Your task to perform on an android device: open app "LiveIn - Share Your Moment" (install if not already installed) Image 0: 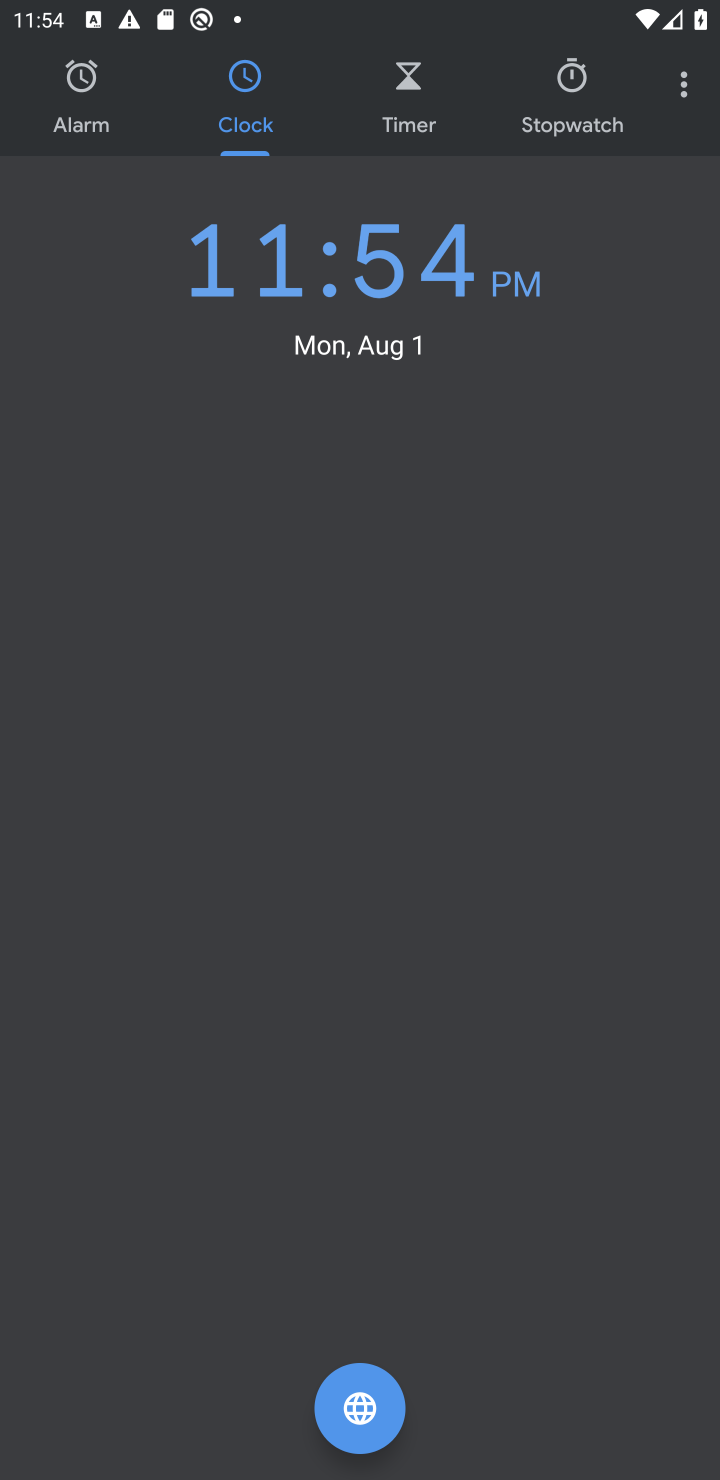
Step 0: press home button
Your task to perform on an android device: open app "LiveIn - Share Your Moment" (install if not already installed) Image 1: 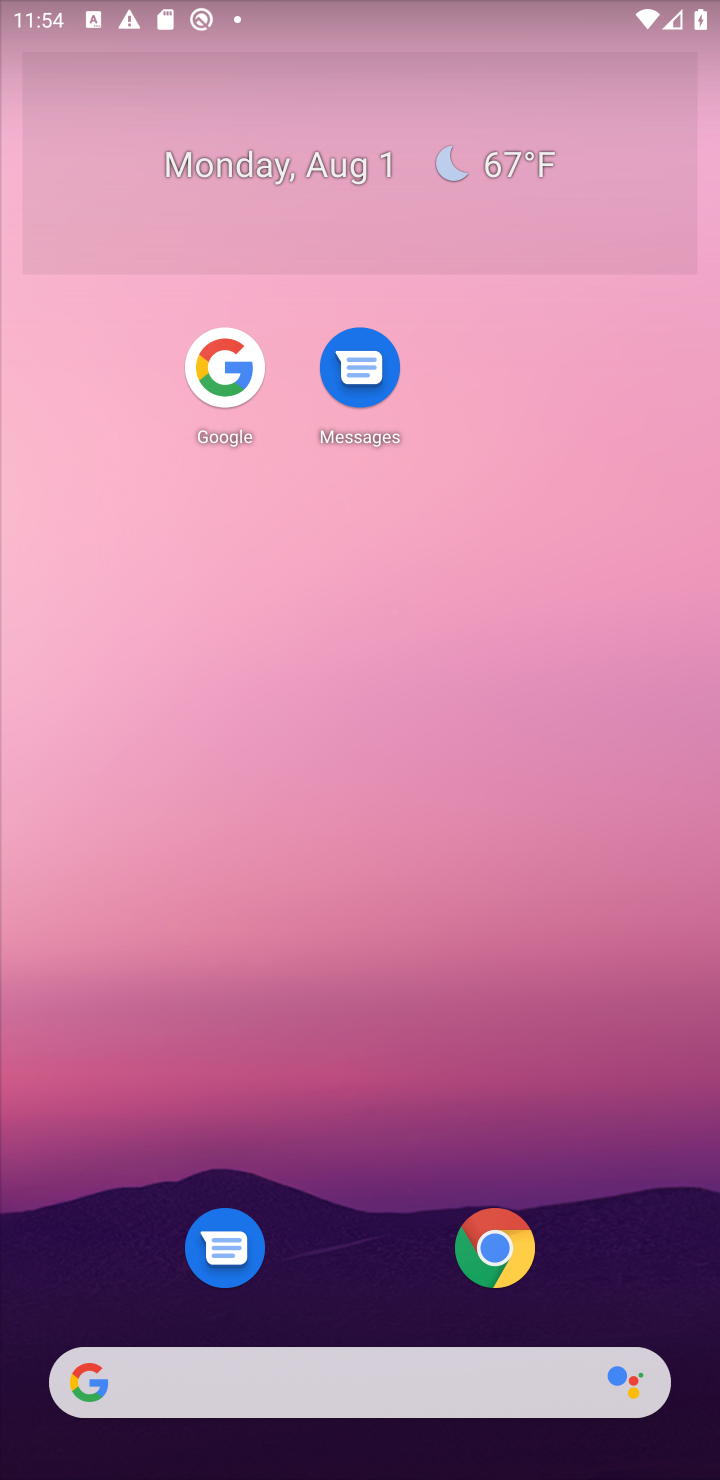
Step 1: drag from (537, 695) to (557, 94)
Your task to perform on an android device: open app "LiveIn - Share Your Moment" (install if not already installed) Image 2: 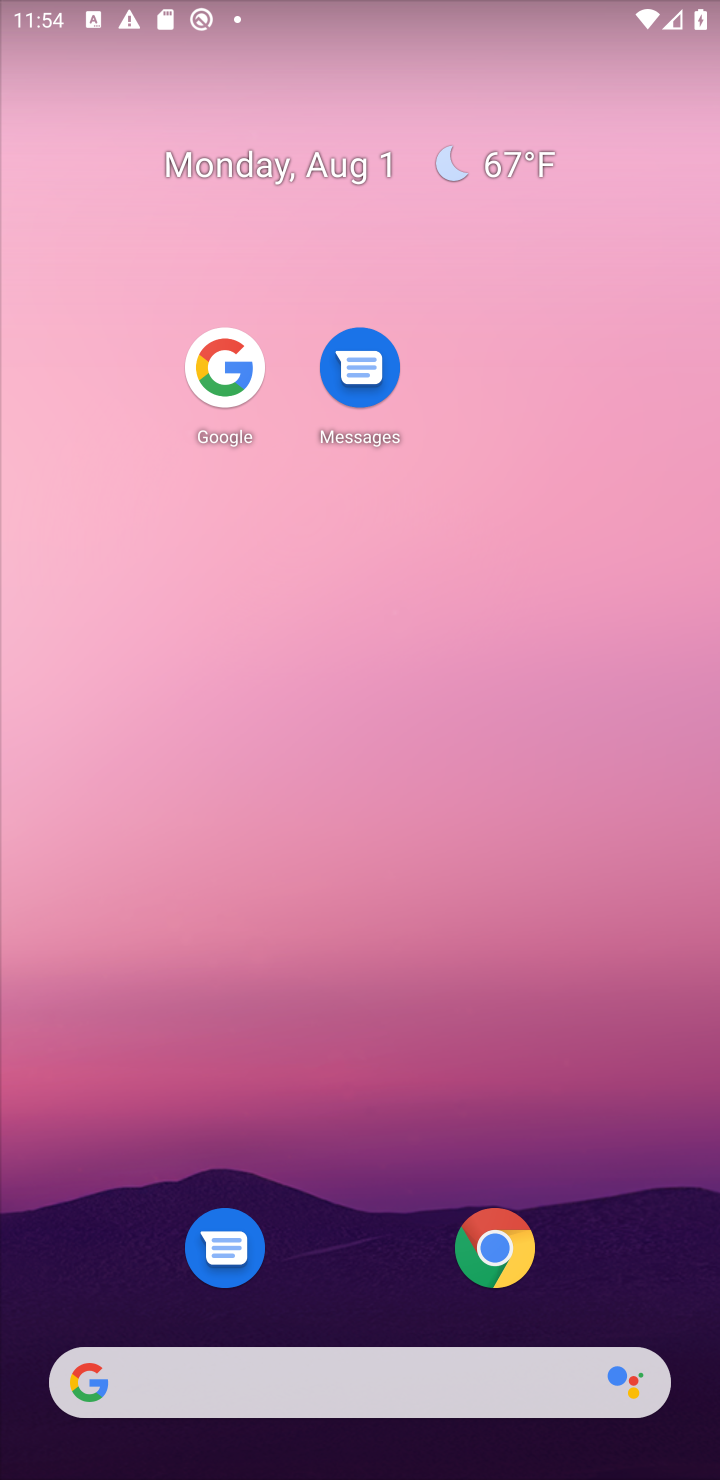
Step 2: drag from (591, 1051) to (594, 186)
Your task to perform on an android device: open app "LiveIn - Share Your Moment" (install if not already installed) Image 3: 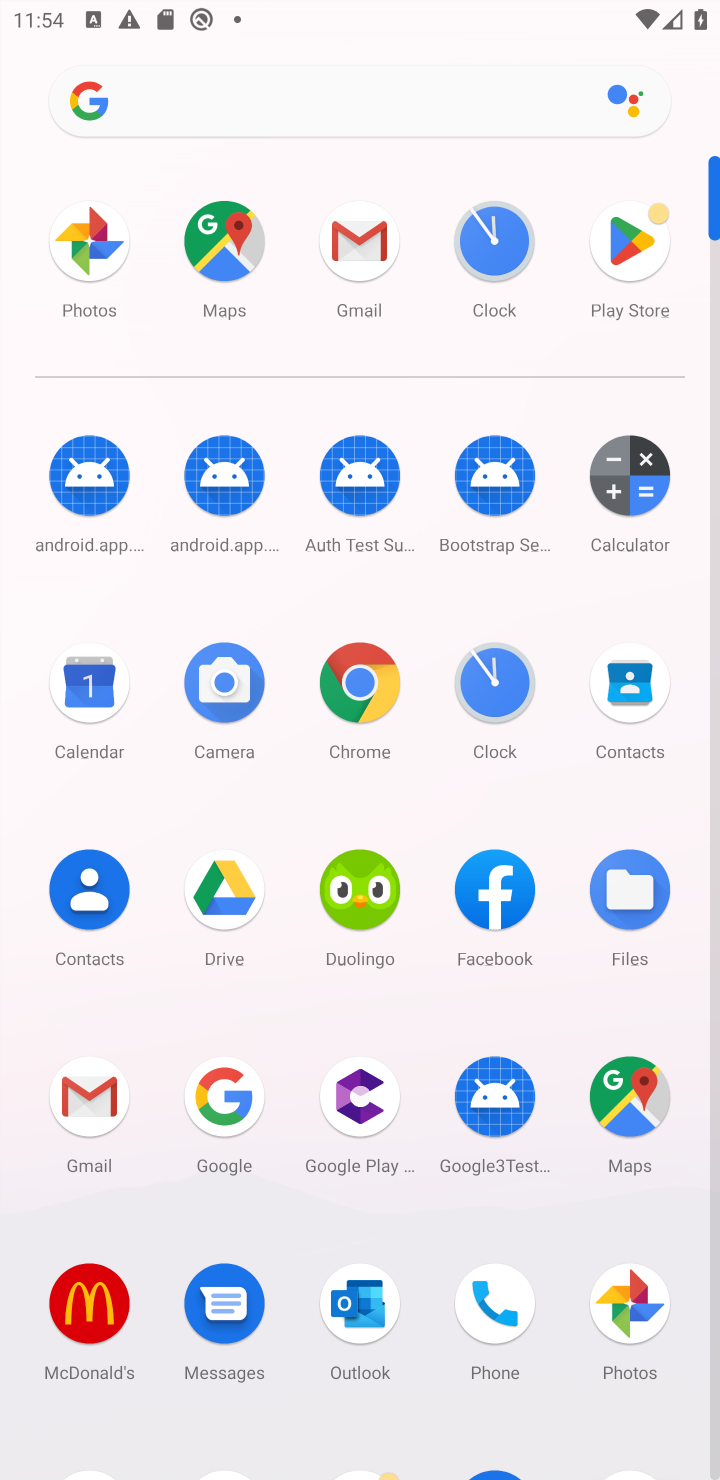
Step 3: drag from (426, 1219) to (407, 388)
Your task to perform on an android device: open app "LiveIn - Share Your Moment" (install if not already installed) Image 4: 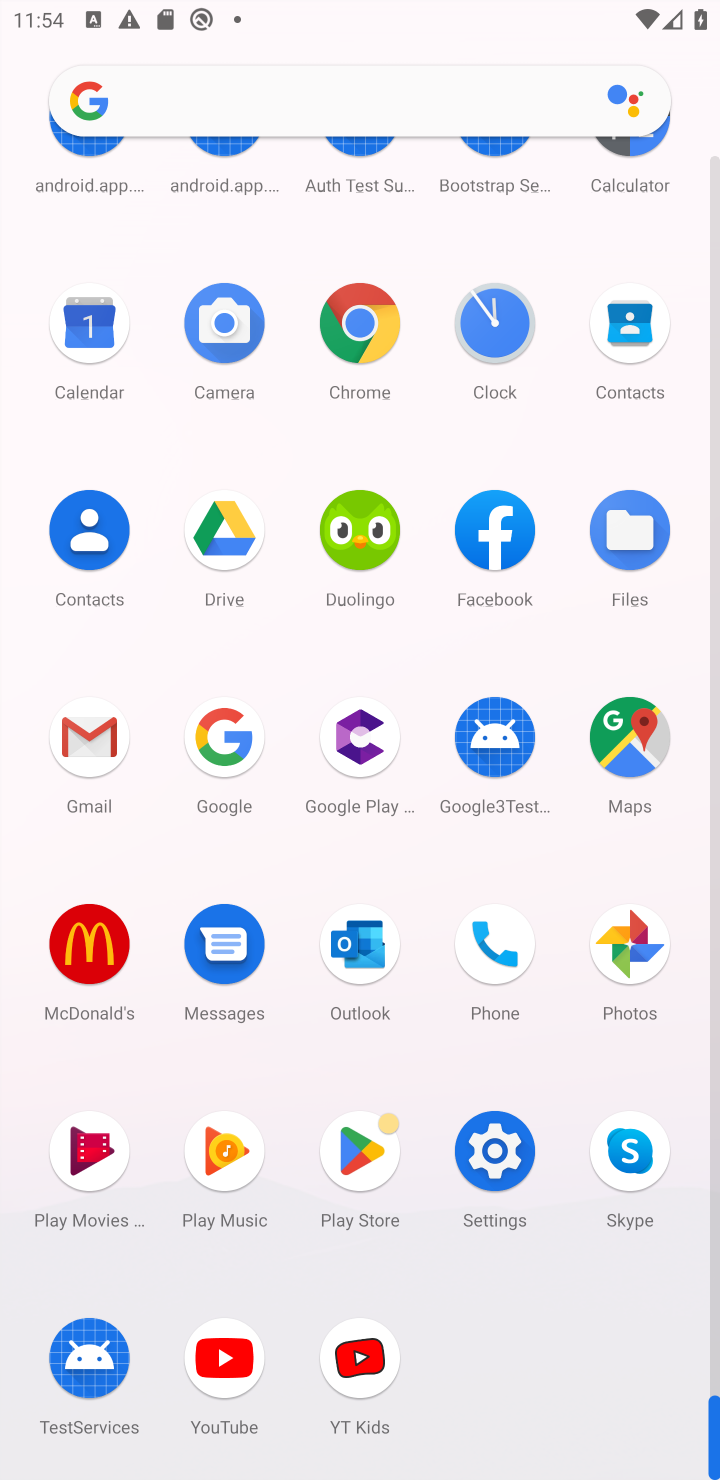
Step 4: click (375, 1146)
Your task to perform on an android device: open app "LiveIn - Share Your Moment" (install if not already installed) Image 5: 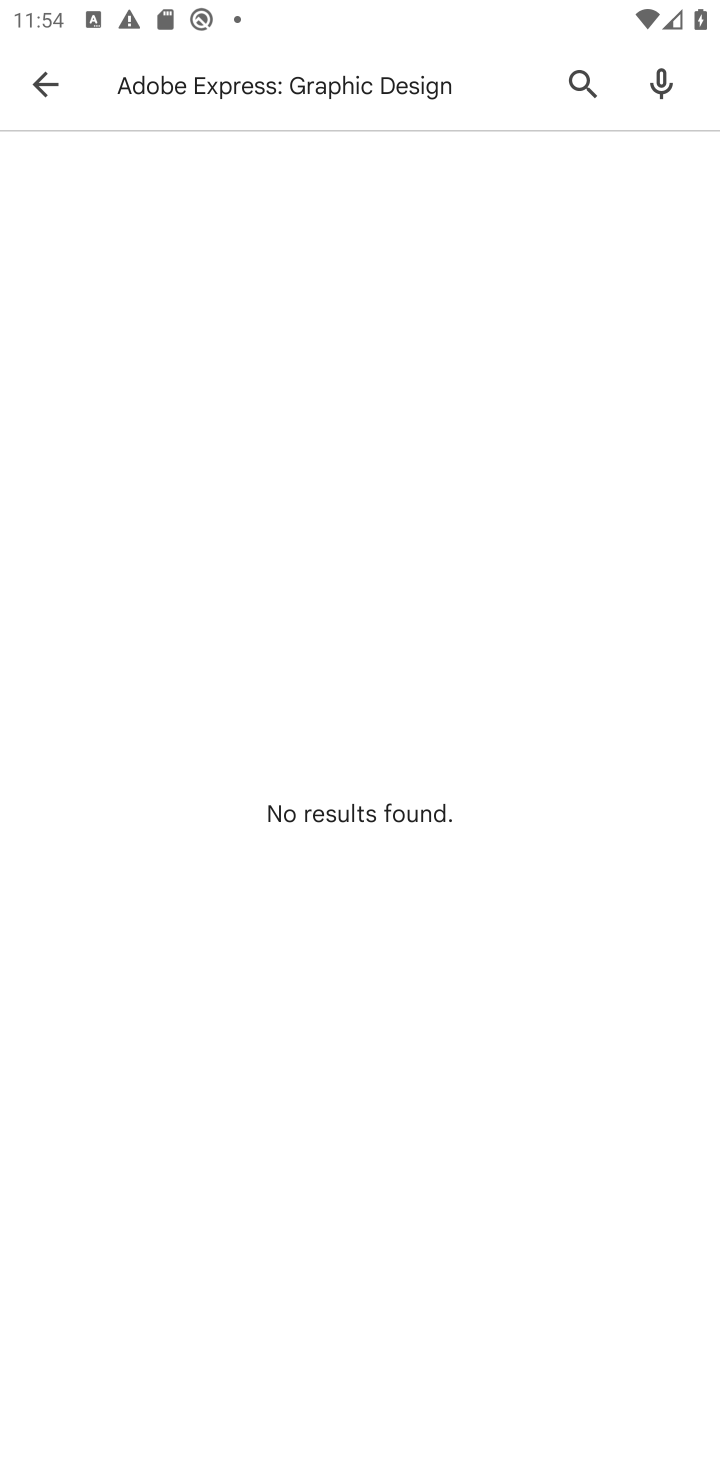
Step 5: click (456, 75)
Your task to perform on an android device: open app "LiveIn - Share Your Moment" (install if not already installed) Image 6: 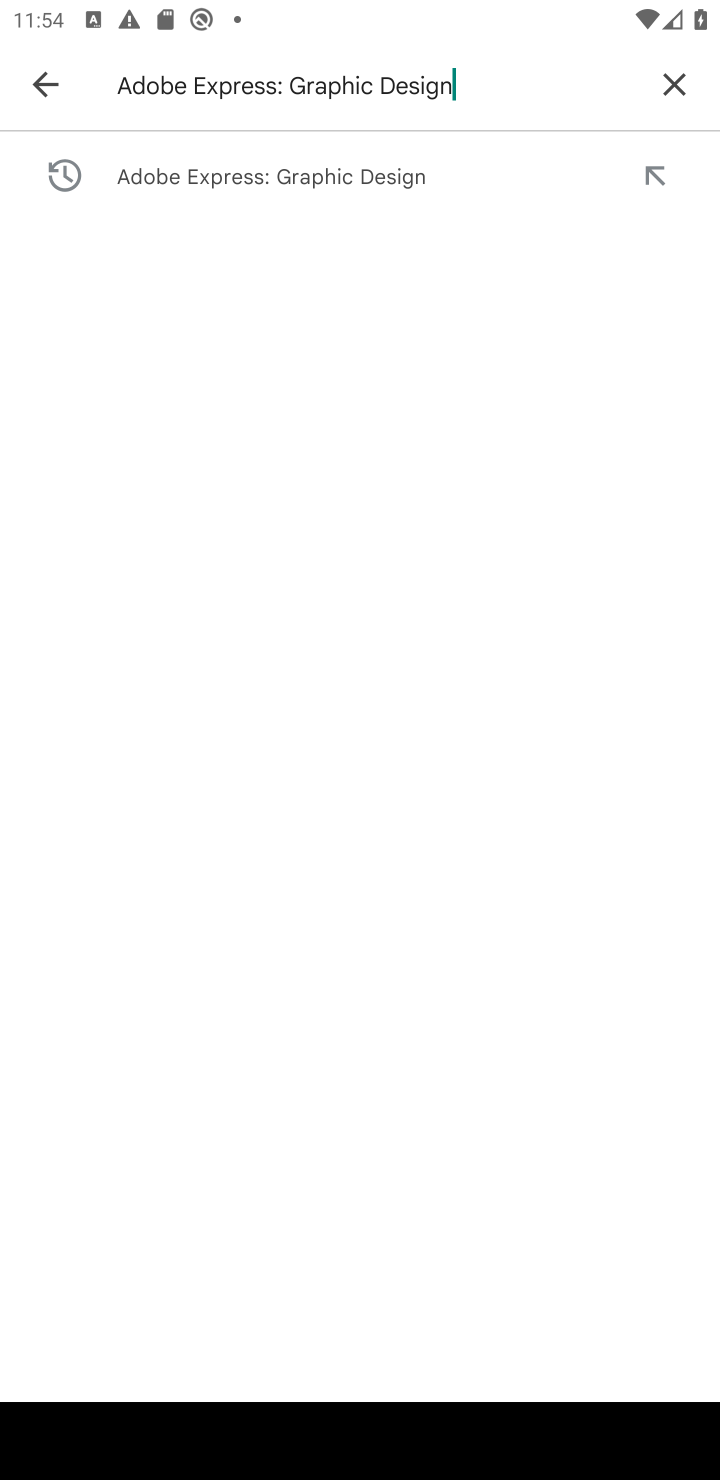
Step 6: click (689, 89)
Your task to perform on an android device: open app "LiveIn - Share Your Moment" (install if not already installed) Image 7: 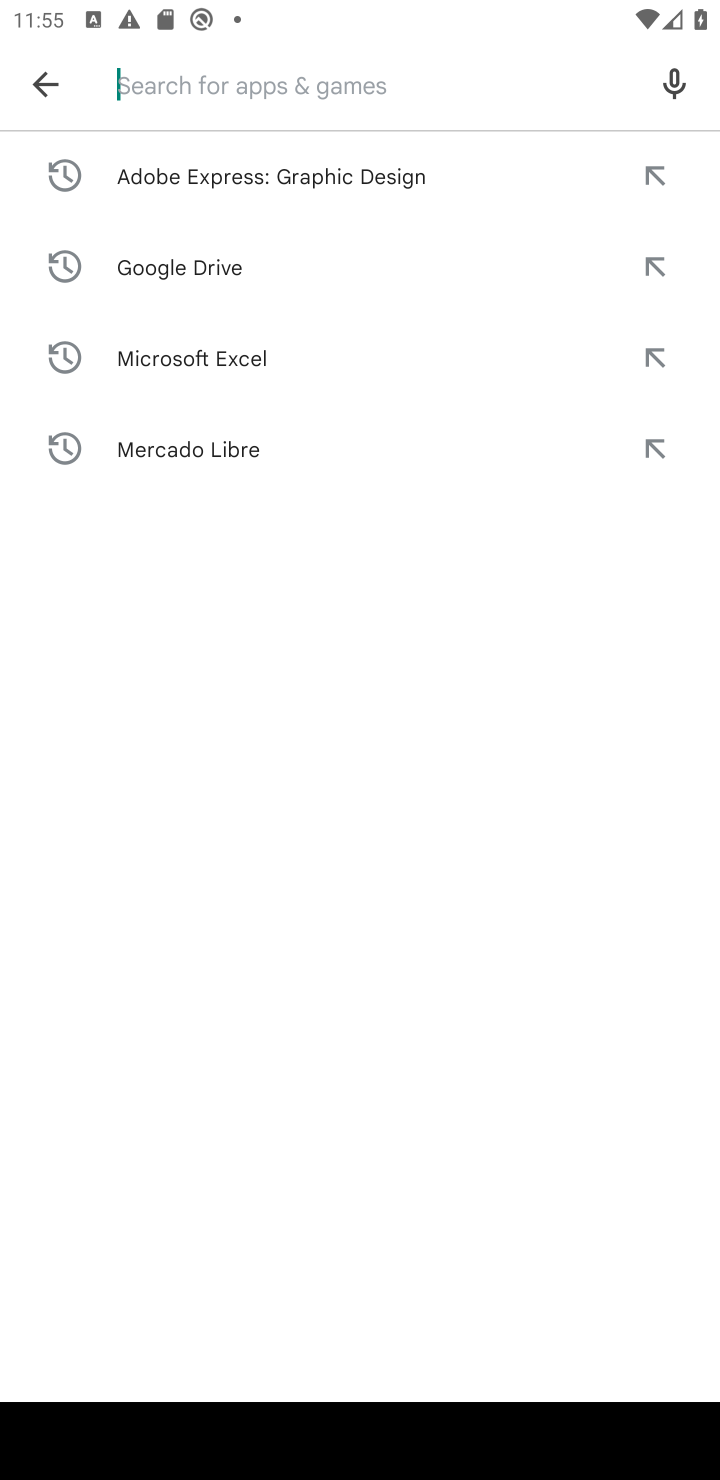
Step 7: type "Liveln - Share Your Moment"
Your task to perform on an android device: open app "LiveIn - Share Your Moment" (install if not already installed) Image 8: 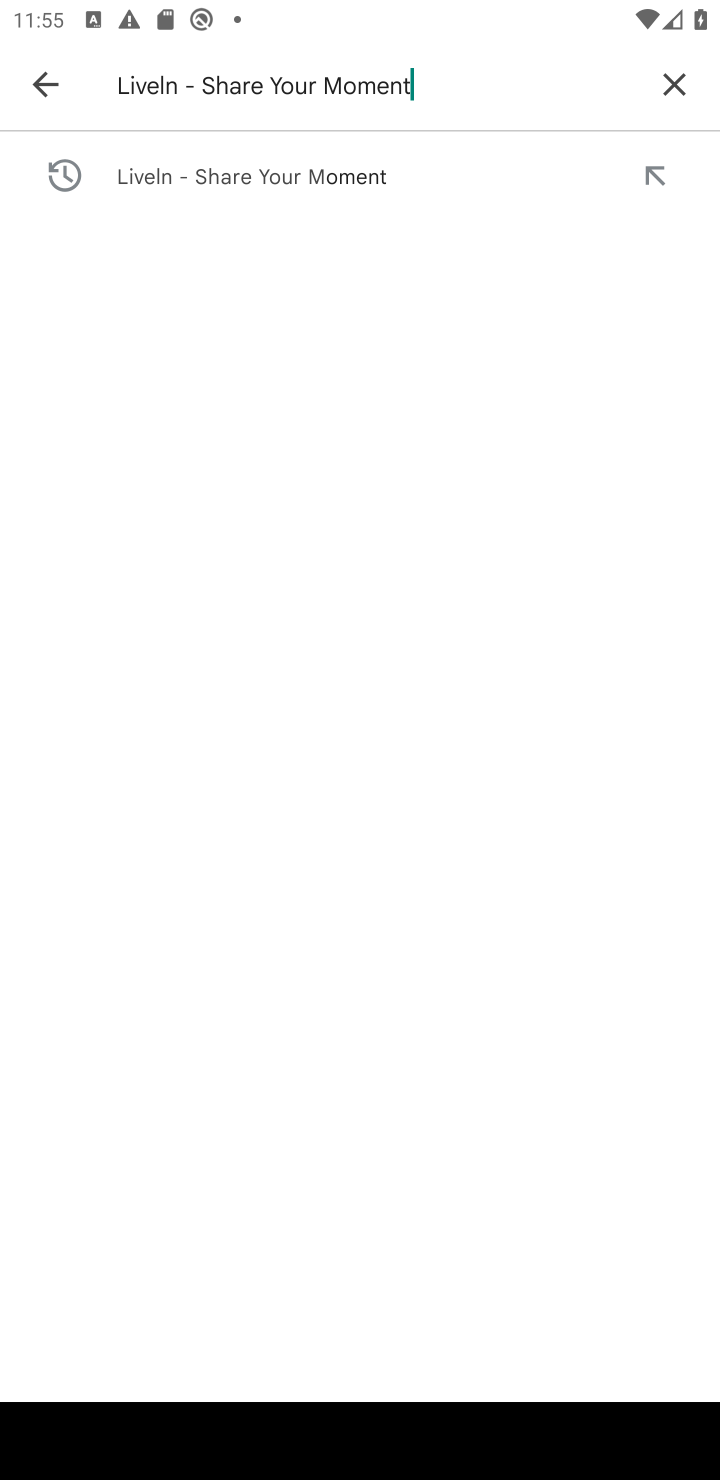
Step 8: press enter
Your task to perform on an android device: open app "LiveIn - Share Your Moment" (install if not already installed) Image 9: 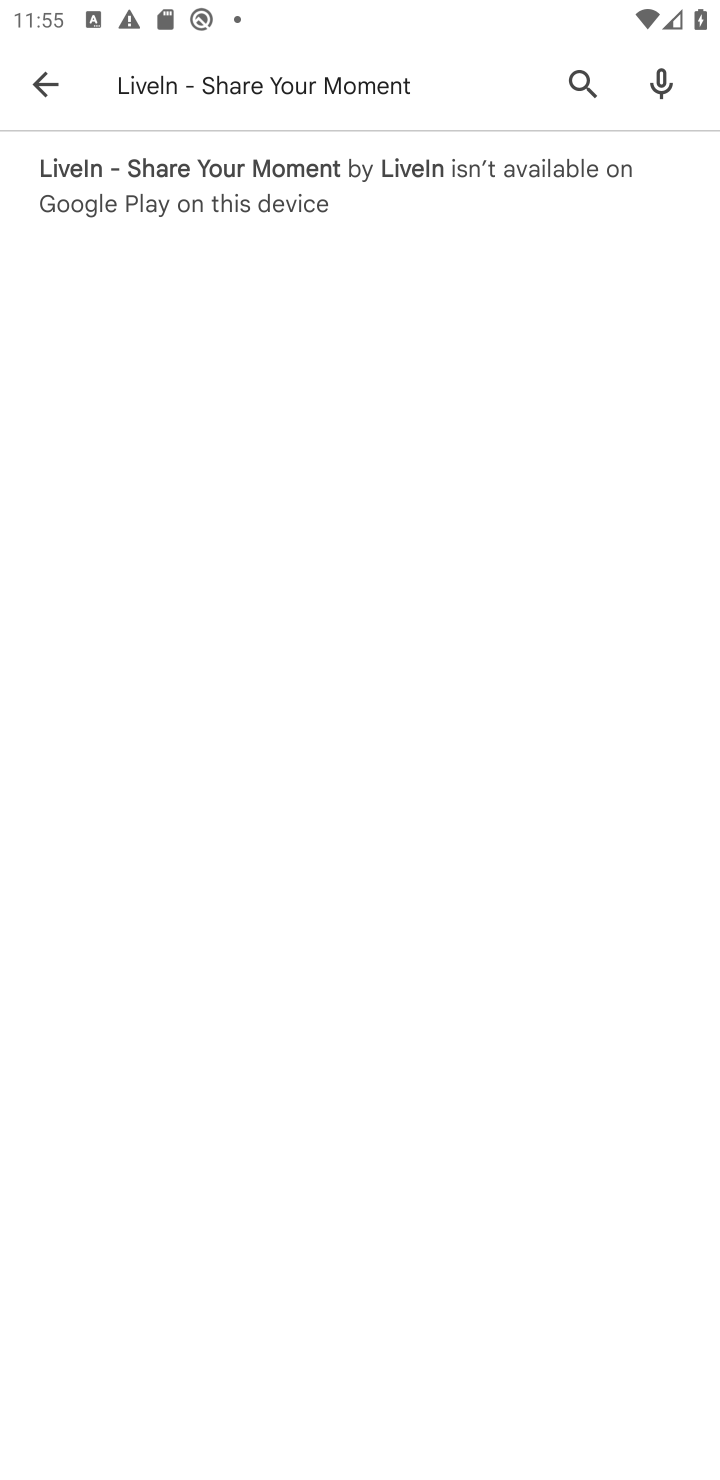
Step 9: press enter
Your task to perform on an android device: open app "LiveIn - Share Your Moment" (install if not already installed) Image 10: 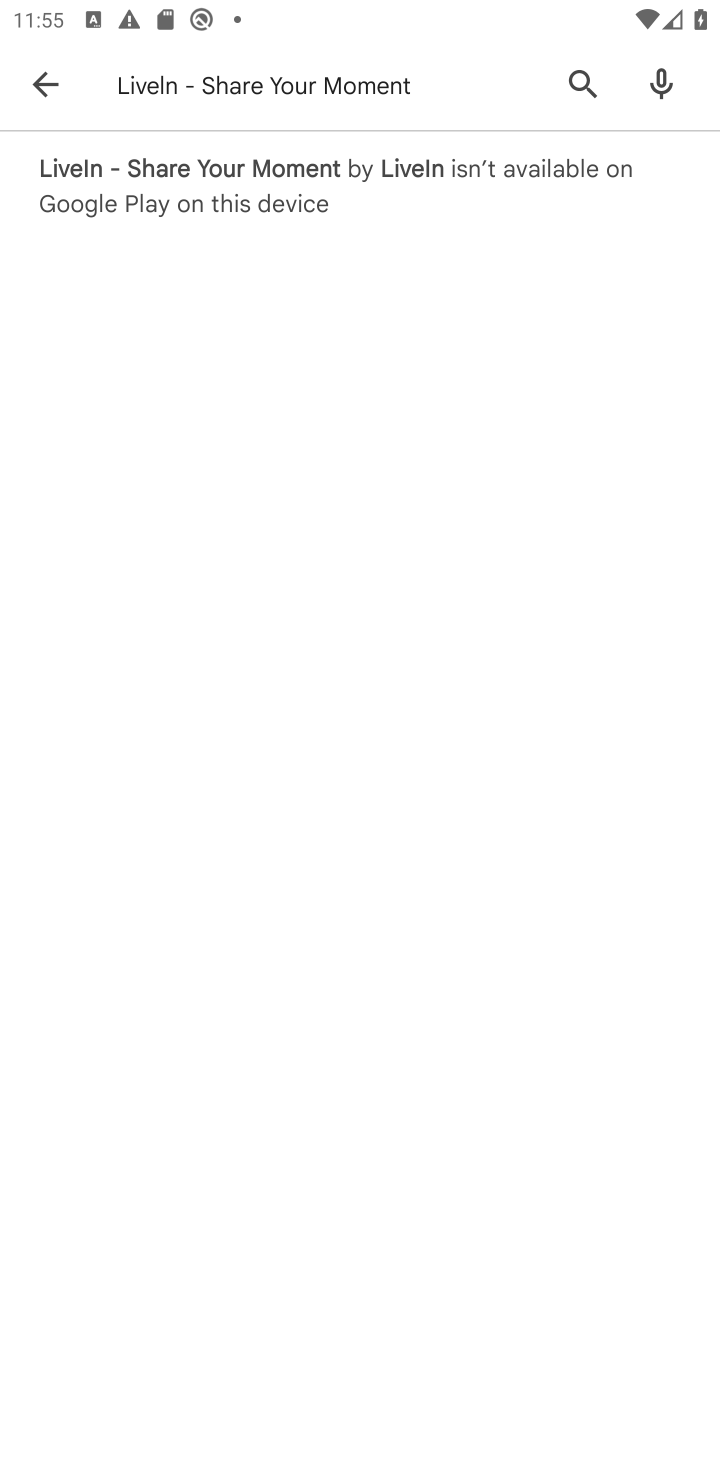
Step 10: task complete